Your task to perform on an android device: uninstall "Move to iOS" Image 0: 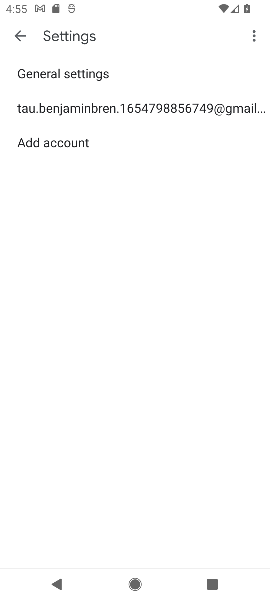
Step 0: press home button
Your task to perform on an android device: uninstall "Move to iOS" Image 1: 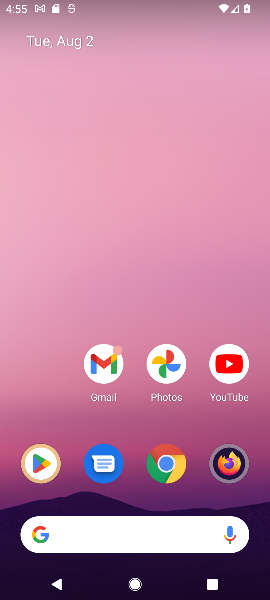
Step 1: click (31, 467)
Your task to perform on an android device: uninstall "Move to iOS" Image 2: 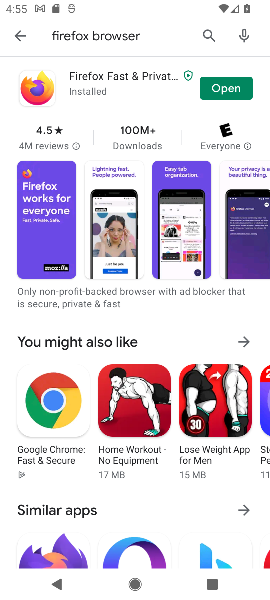
Step 2: click (210, 36)
Your task to perform on an android device: uninstall "Move to iOS" Image 3: 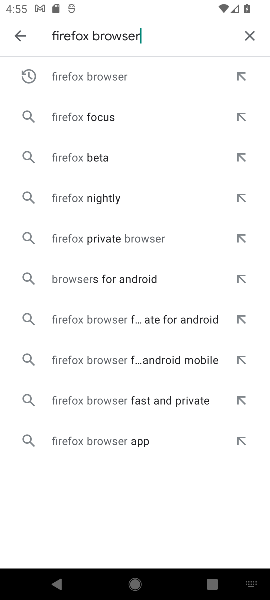
Step 3: click (253, 36)
Your task to perform on an android device: uninstall "Move to iOS" Image 4: 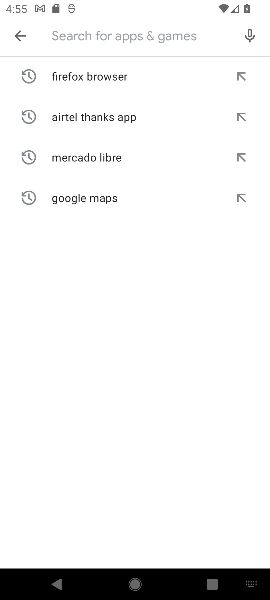
Step 4: type "Move to iOS"
Your task to perform on an android device: uninstall "Move to iOS" Image 5: 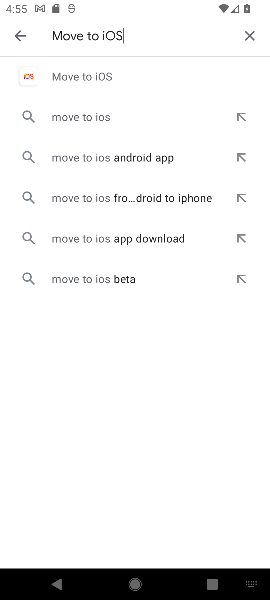
Step 5: click (61, 72)
Your task to perform on an android device: uninstall "Move to iOS" Image 6: 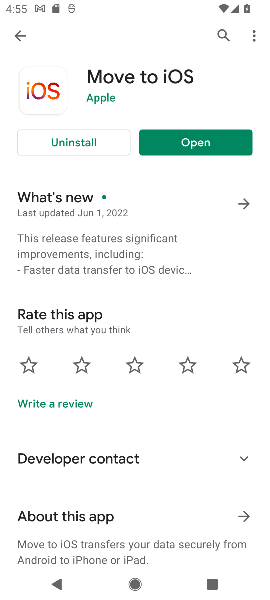
Step 6: click (73, 144)
Your task to perform on an android device: uninstall "Move to iOS" Image 7: 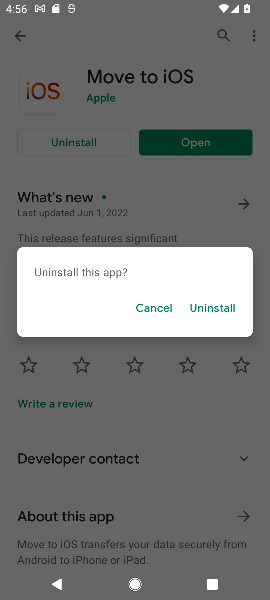
Step 7: click (230, 305)
Your task to perform on an android device: uninstall "Move to iOS" Image 8: 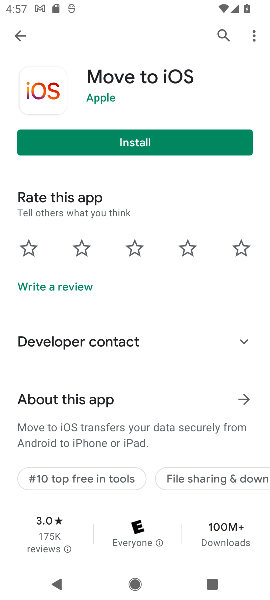
Step 8: task complete